Your task to perform on an android device: Go to Wikipedia Image 0: 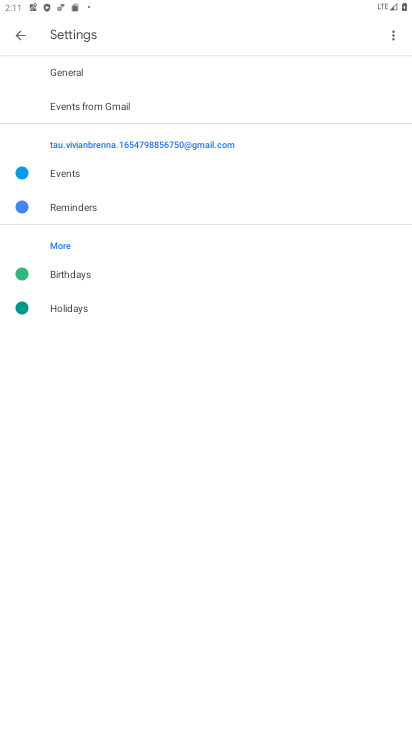
Step 0: press home button
Your task to perform on an android device: Go to Wikipedia Image 1: 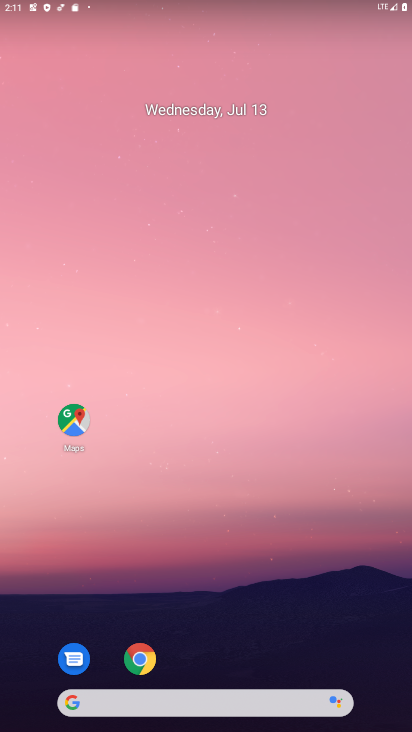
Step 1: click (146, 664)
Your task to perform on an android device: Go to Wikipedia Image 2: 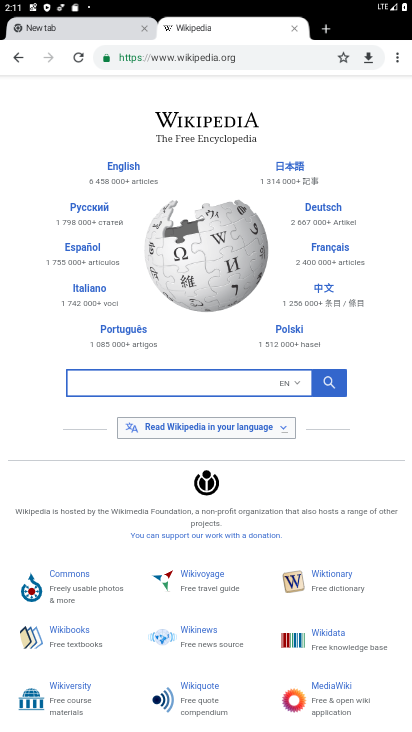
Step 2: task complete